Your task to perform on an android device: Go to Maps Image 0: 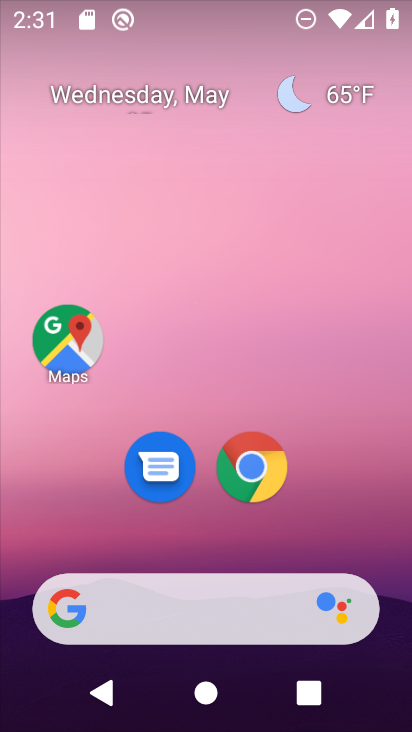
Step 0: click (72, 327)
Your task to perform on an android device: Go to Maps Image 1: 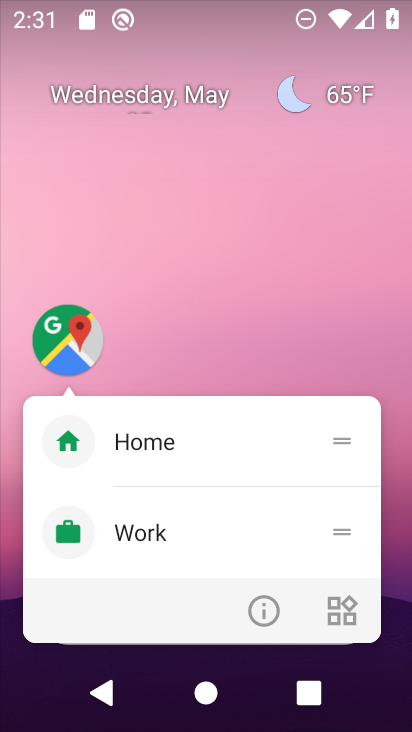
Step 1: click (72, 322)
Your task to perform on an android device: Go to Maps Image 2: 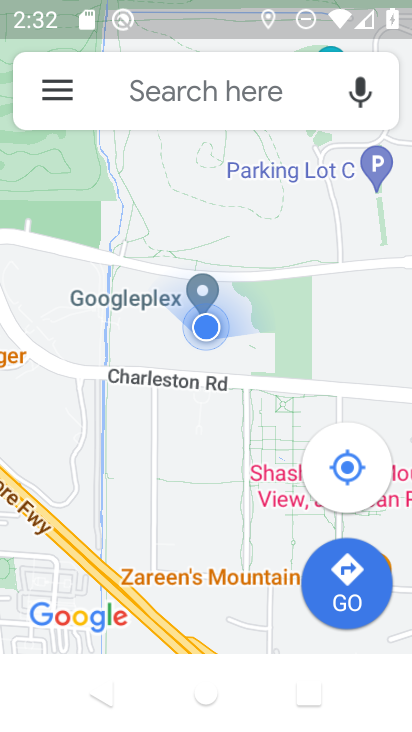
Step 2: task complete